Your task to perform on an android device: add a contact Image 0: 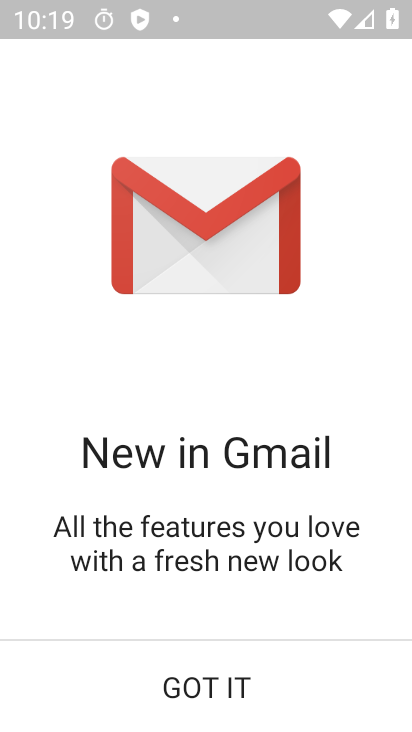
Step 0: press home button
Your task to perform on an android device: add a contact Image 1: 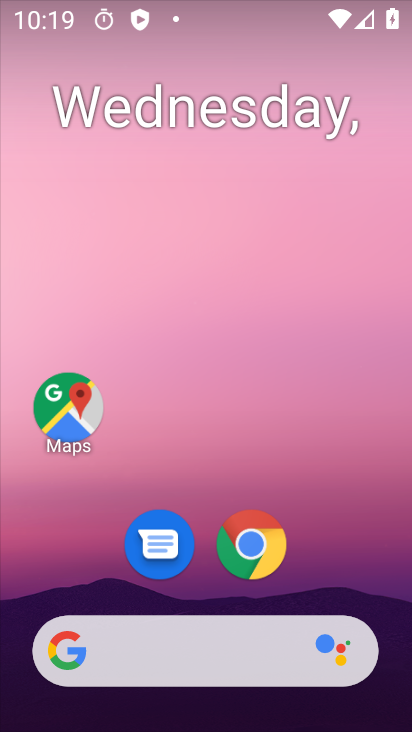
Step 1: drag from (234, 691) to (194, 51)
Your task to perform on an android device: add a contact Image 2: 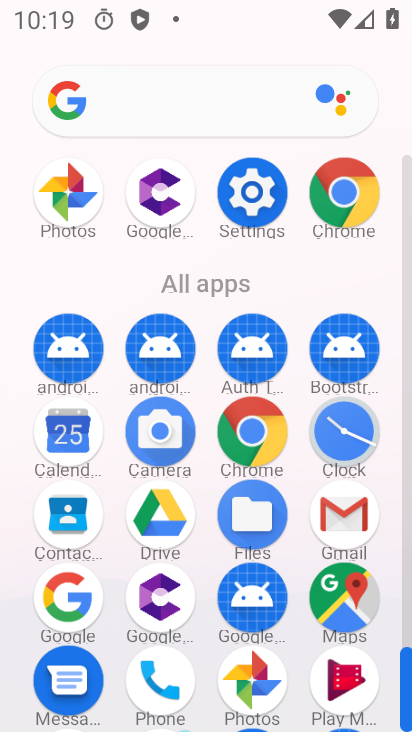
Step 2: click (154, 669)
Your task to perform on an android device: add a contact Image 3: 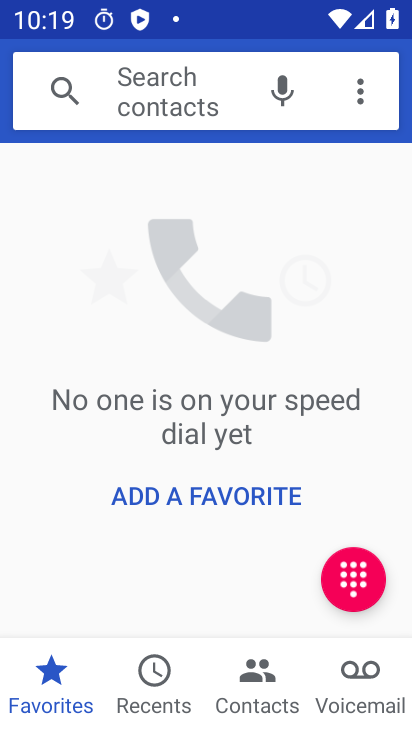
Step 3: click (260, 690)
Your task to perform on an android device: add a contact Image 4: 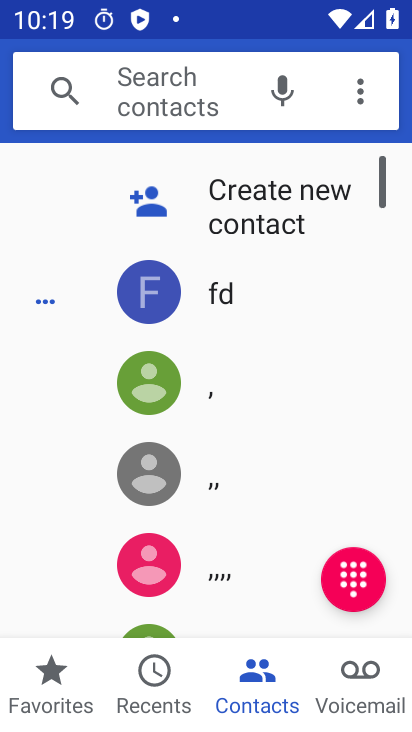
Step 4: click (245, 217)
Your task to perform on an android device: add a contact Image 5: 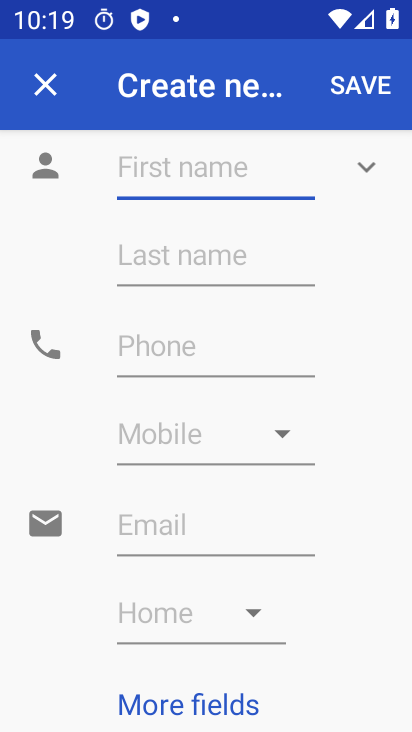
Step 5: click (173, 168)
Your task to perform on an android device: add a contact Image 6: 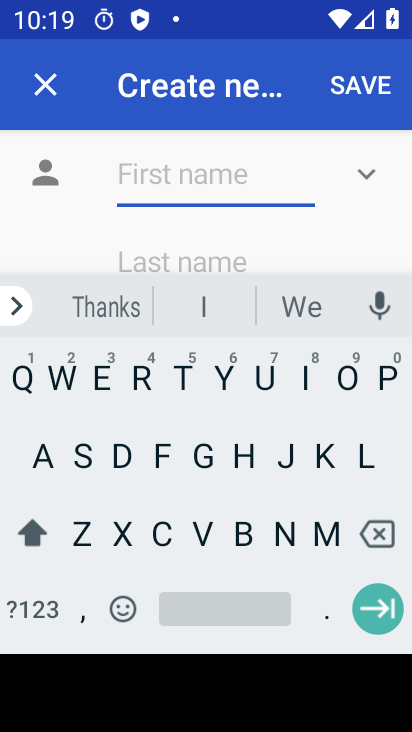
Step 6: click (137, 455)
Your task to perform on an android device: add a contact Image 7: 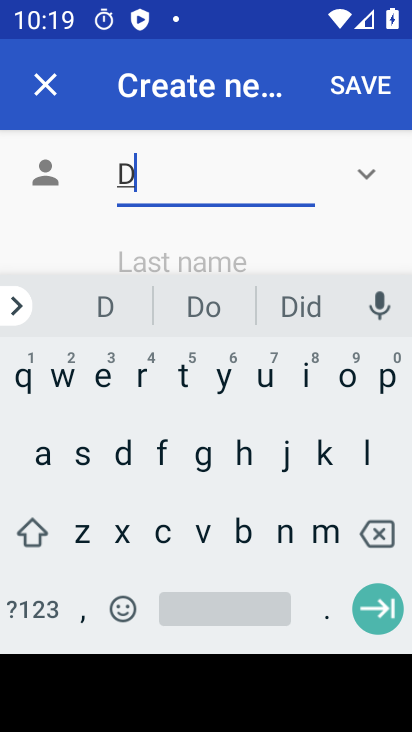
Step 7: click (80, 444)
Your task to perform on an android device: add a contact Image 8: 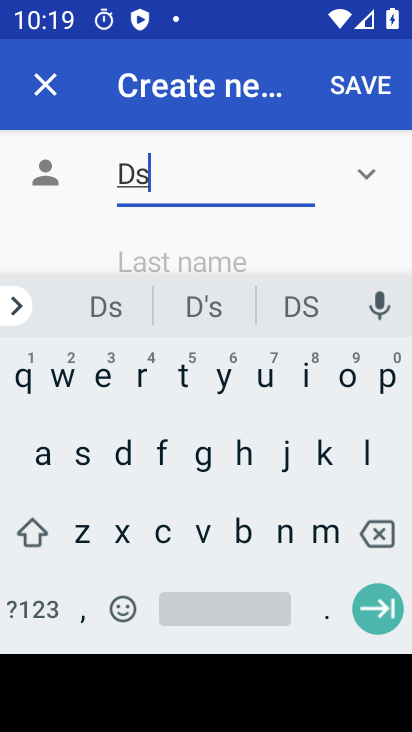
Step 8: drag from (181, 251) to (187, 50)
Your task to perform on an android device: add a contact Image 9: 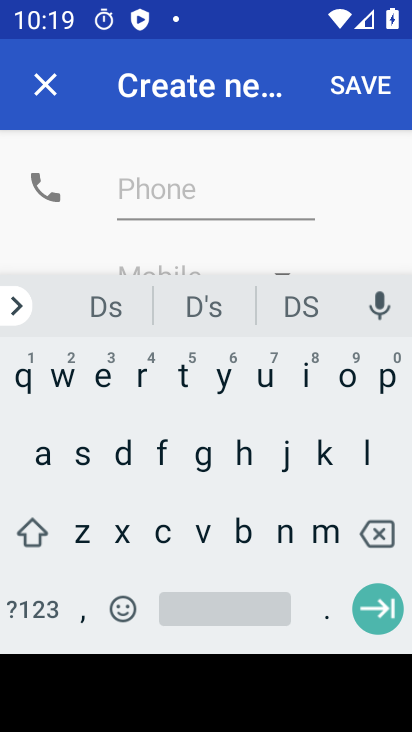
Step 9: click (136, 194)
Your task to perform on an android device: add a contact Image 10: 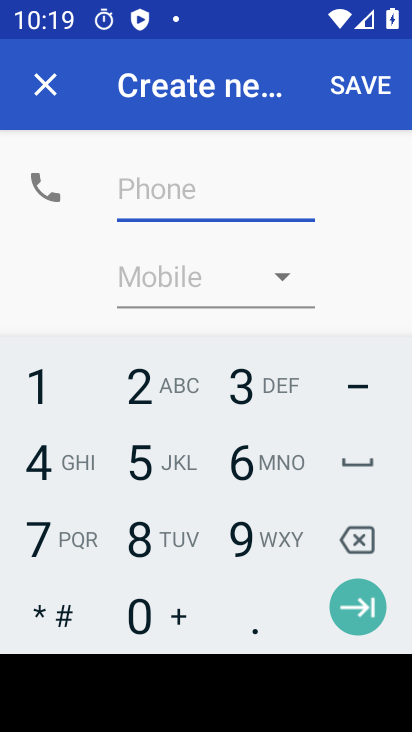
Step 10: click (241, 453)
Your task to perform on an android device: add a contact Image 11: 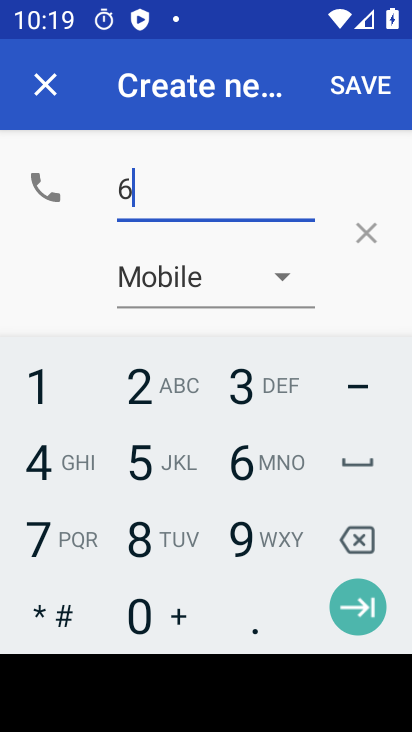
Step 11: click (185, 456)
Your task to perform on an android device: add a contact Image 12: 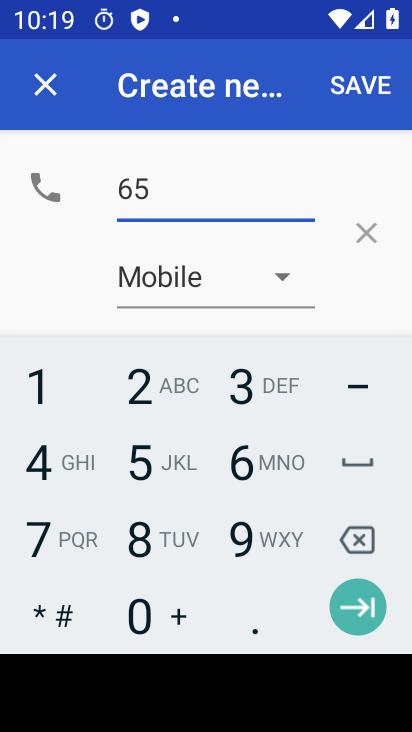
Step 12: click (46, 530)
Your task to perform on an android device: add a contact Image 13: 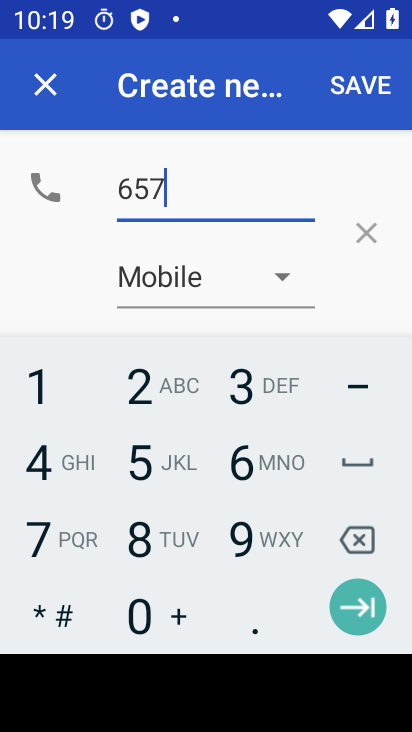
Step 13: click (136, 544)
Your task to perform on an android device: add a contact Image 14: 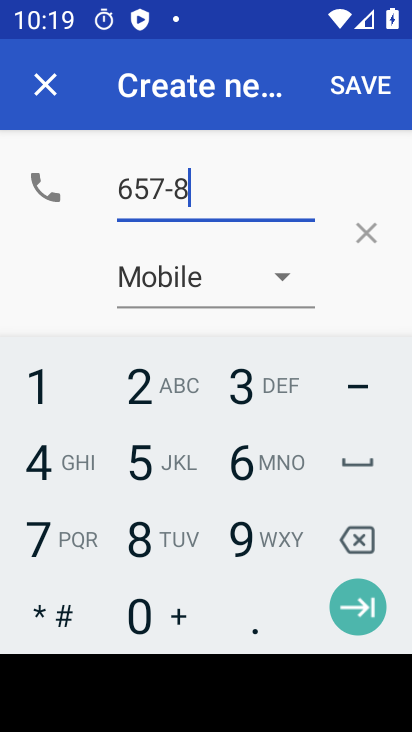
Step 14: click (47, 470)
Your task to perform on an android device: add a contact Image 15: 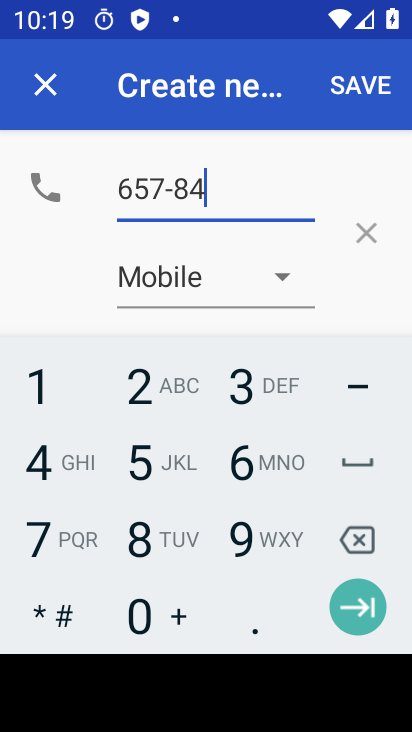
Step 15: click (115, 383)
Your task to perform on an android device: add a contact Image 16: 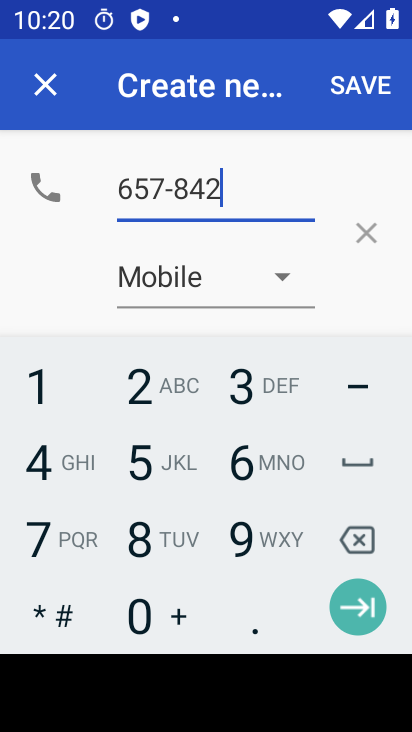
Step 16: click (180, 445)
Your task to perform on an android device: add a contact Image 17: 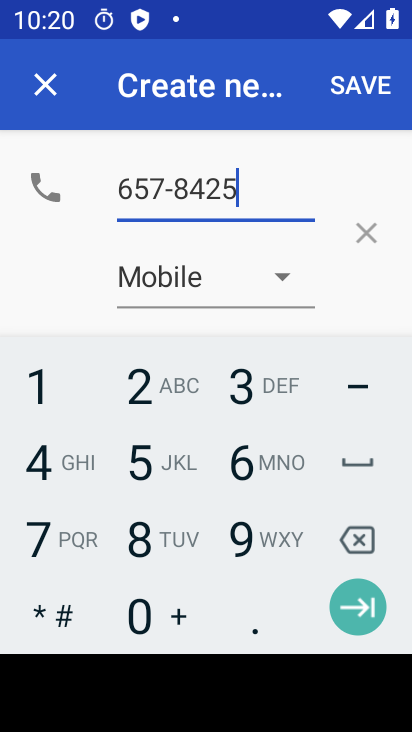
Step 17: click (221, 401)
Your task to perform on an android device: add a contact Image 18: 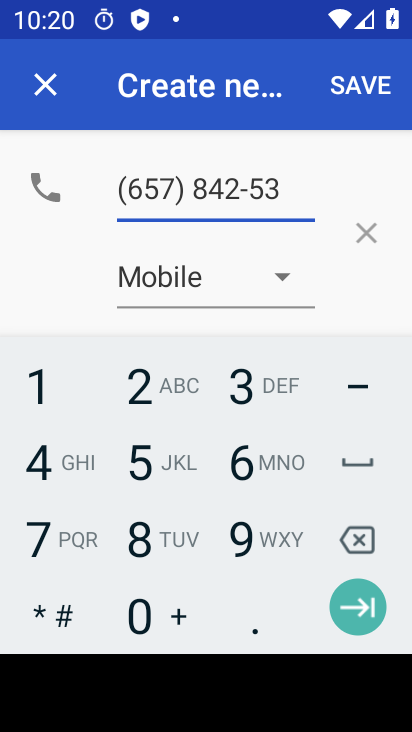
Step 18: click (244, 441)
Your task to perform on an android device: add a contact Image 19: 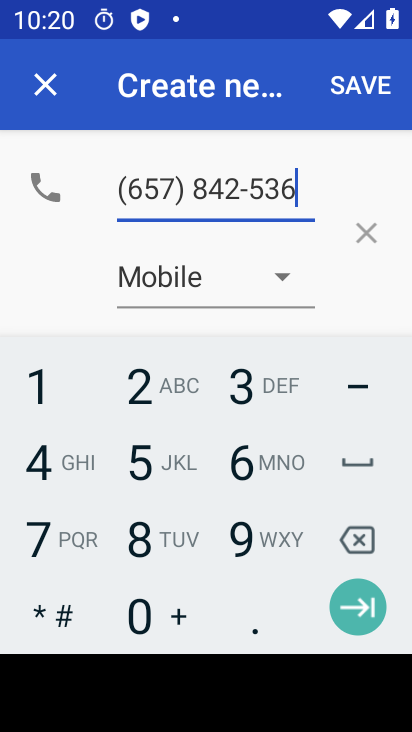
Step 19: click (181, 486)
Your task to perform on an android device: add a contact Image 20: 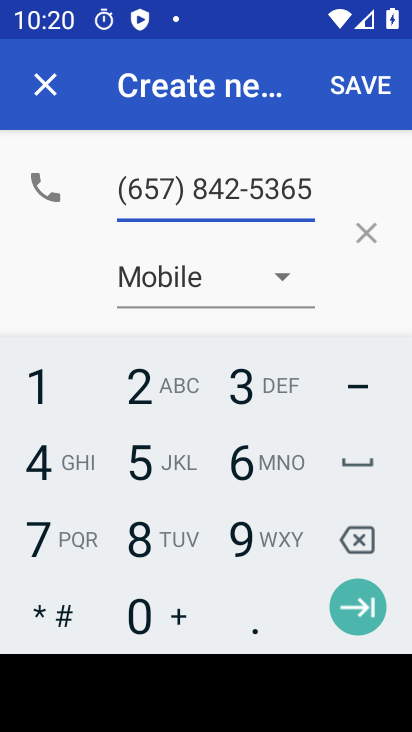
Step 20: click (367, 92)
Your task to perform on an android device: add a contact Image 21: 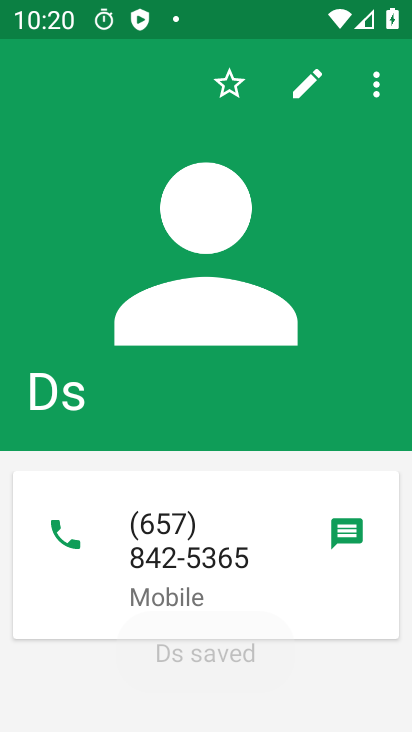
Step 21: task complete